Your task to perform on an android device: Open ESPN.com Image 0: 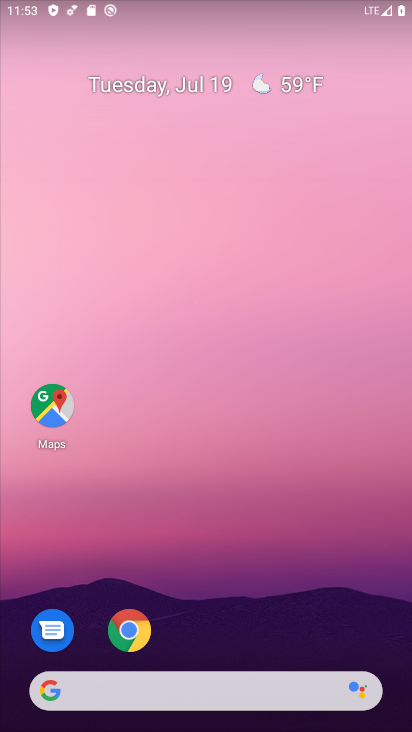
Step 0: drag from (198, 705) to (280, 289)
Your task to perform on an android device: Open ESPN.com Image 1: 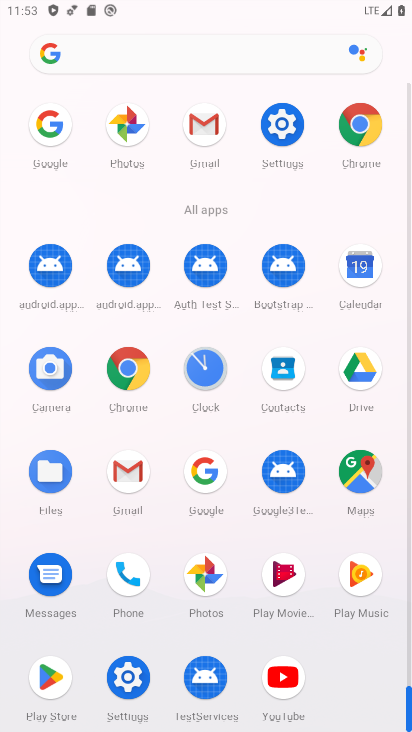
Step 1: click (130, 396)
Your task to perform on an android device: Open ESPN.com Image 2: 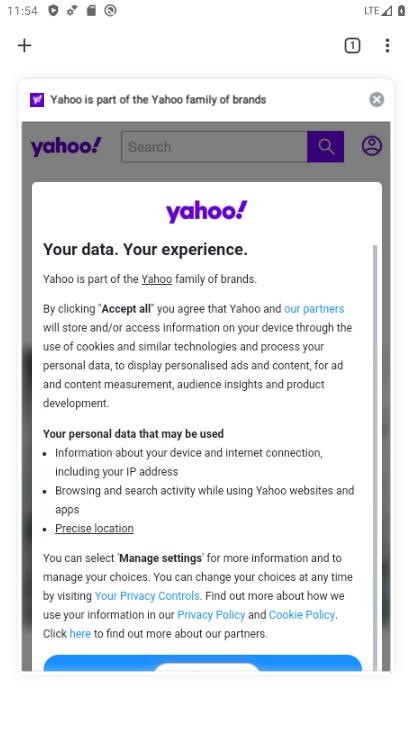
Step 2: click (31, 45)
Your task to perform on an android device: Open ESPN.com Image 3: 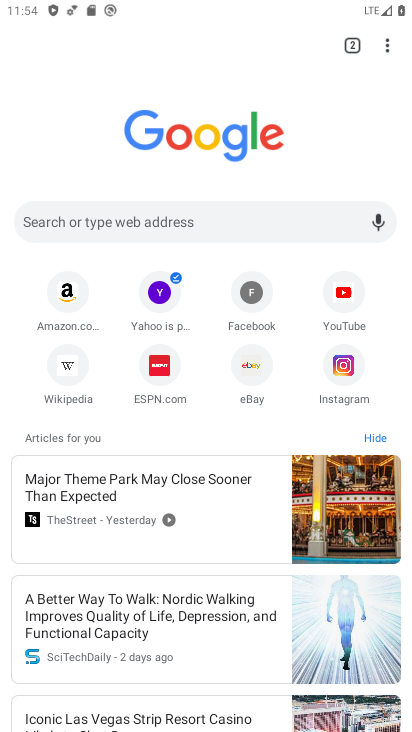
Step 3: click (160, 383)
Your task to perform on an android device: Open ESPN.com Image 4: 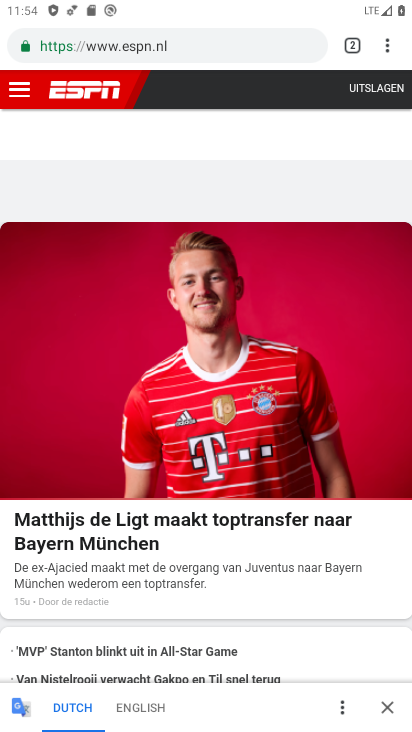
Step 4: task complete